Your task to perform on an android device: Go to Maps Image 0: 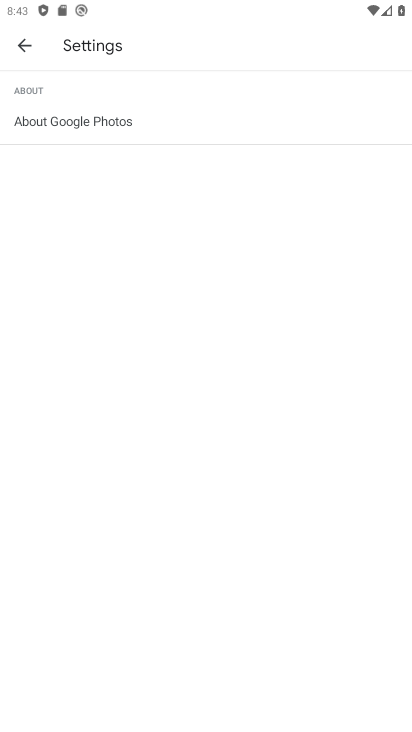
Step 0: press home button
Your task to perform on an android device: Go to Maps Image 1: 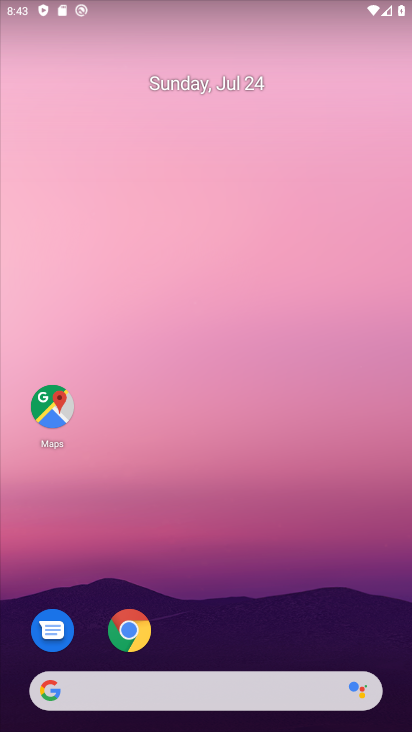
Step 1: click (50, 409)
Your task to perform on an android device: Go to Maps Image 2: 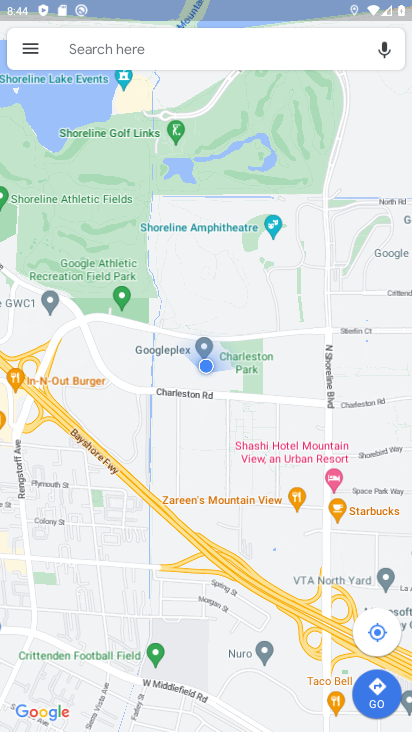
Step 2: task complete